Your task to perform on an android device: turn on improve location accuracy Image 0: 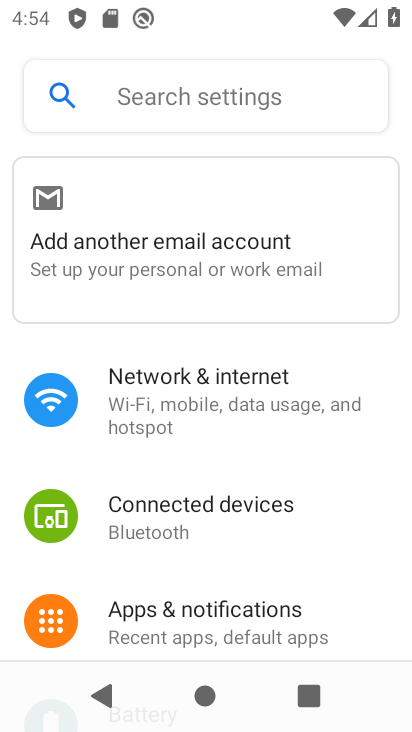
Step 0: press home button
Your task to perform on an android device: turn on improve location accuracy Image 1: 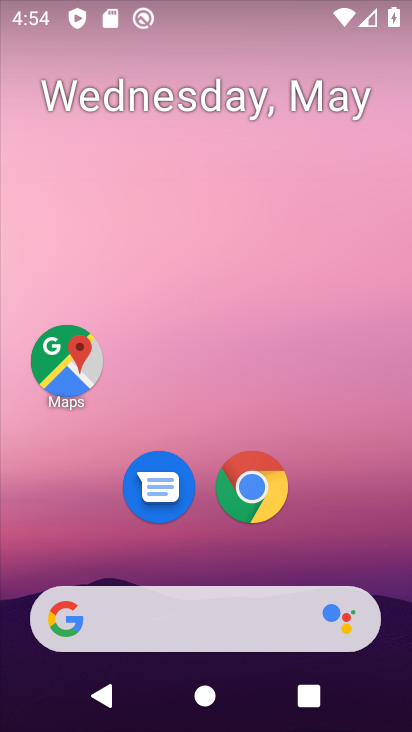
Step 1: drag from (278, 536) to (282, 94)
Your task to perform on an android device: turn on improve location accuracy Image 2: 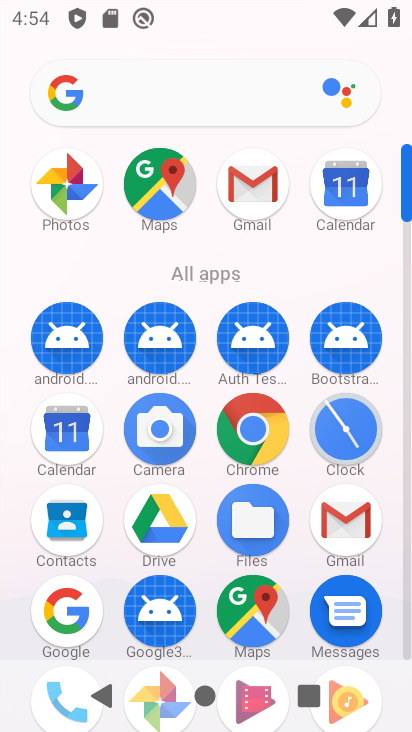
Step 2: drag from (310, 279) to (340, 58)
Your task to perform on an android device: turn on improve location accuracy Image 3: 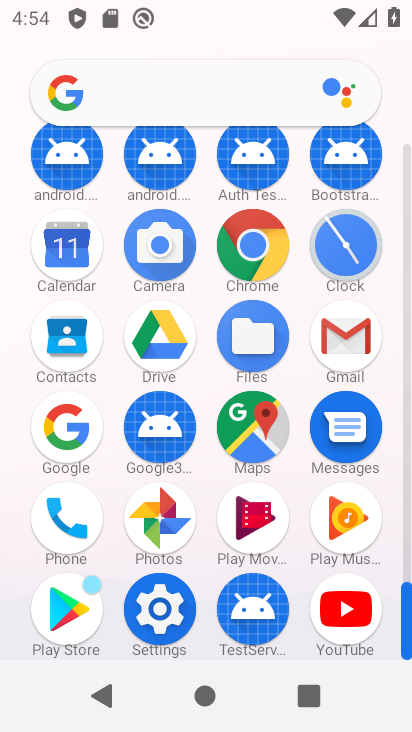
Step 3: click (138, 611)
Your task to perform on an android device: turn on improve location accuracy Image 4: 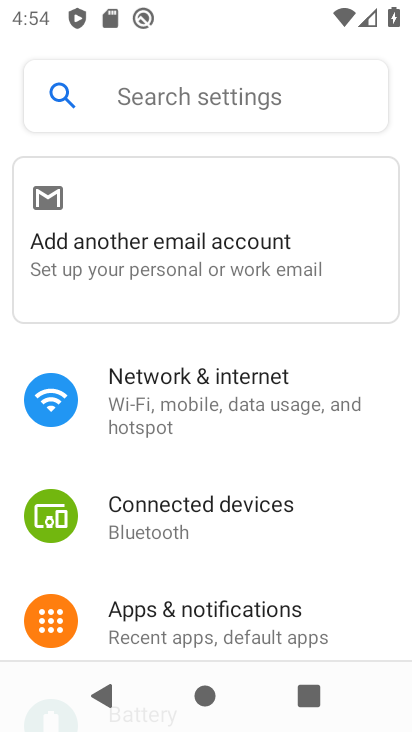
Step 4: drag from (344, 607) to (371, 154)
Your task to perform on an android device: turn on improve location accuracy Image 5: 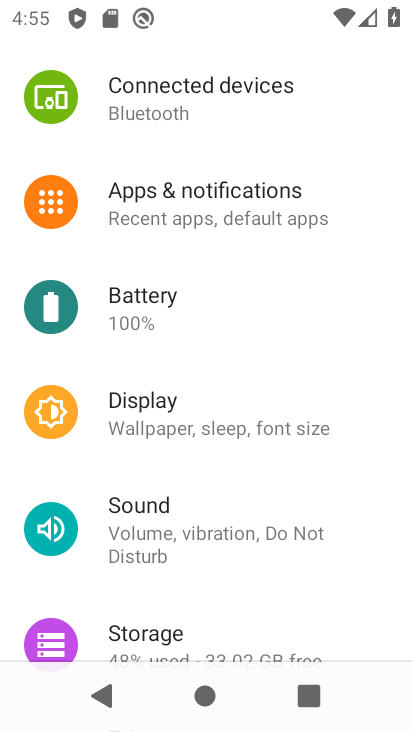
Step 5: drag from (273, 545) to (296, 137)
Your task to perform on an android device: turn on improve location accuracy Image 6: 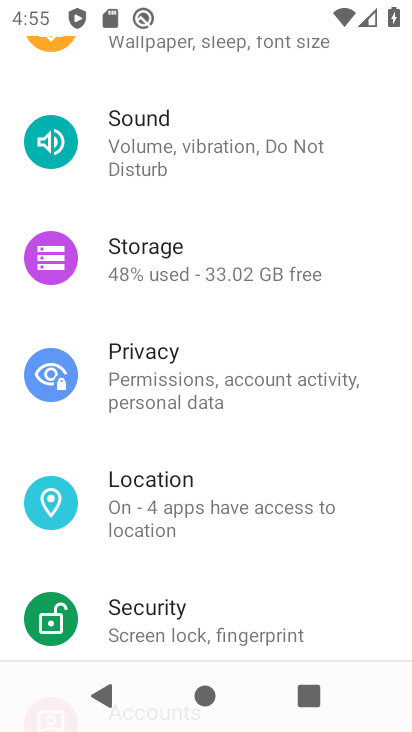
Step 6: click (152, 502)
Your task to perform on an android device: turn on improve location accuracy Image 7: 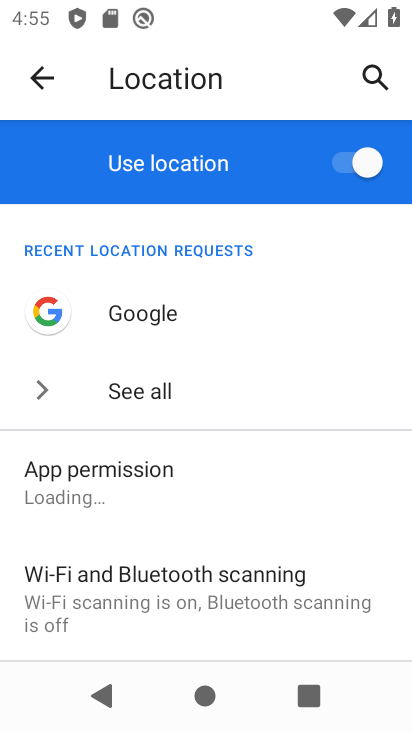
Step 7: drag from (355, 525) to (340, 200)
Your task to perform on an android device: turn on improve location accuracy Image 8: 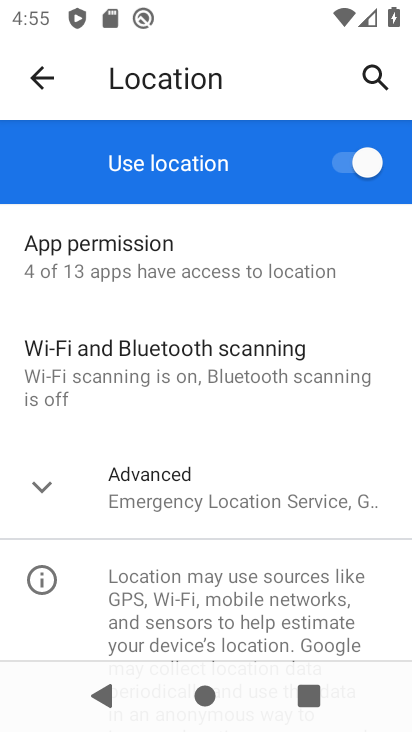
Step 8: click (190, 495)
Your task to perform on an android device: turn on improve location accuracy Image 9: 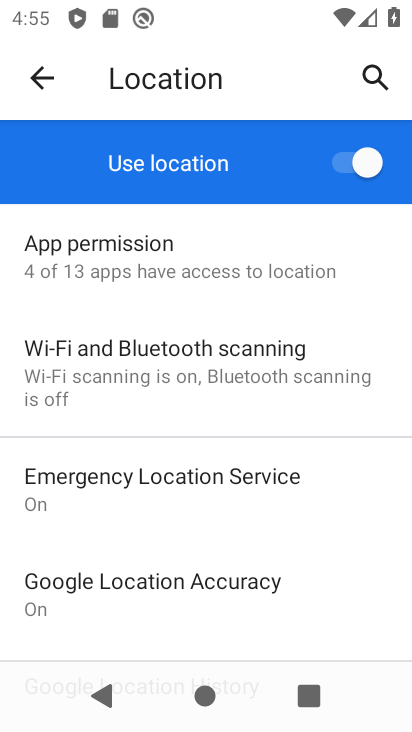
Step 9: click (139, 584)
Your task to perform on an android device: turn on improve location accuracy Image 10: 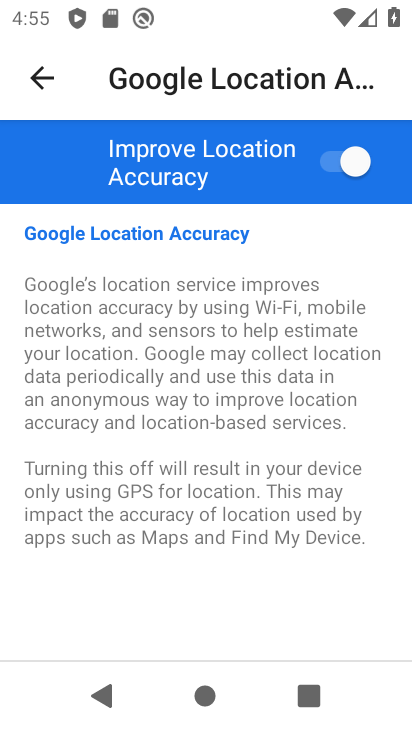
Step 10: task complete